Your task to perform on an android device: turn off wifi Image 0: 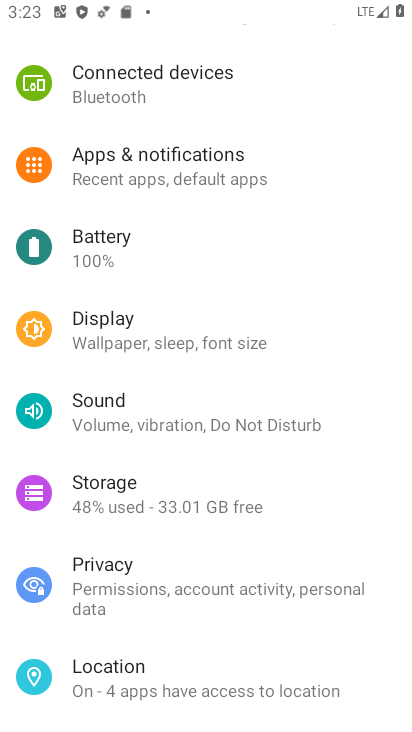
Step 0: drag from (198, 114) to (249, 489)
Your task to perform on an android device: turn off wifi Image 1: 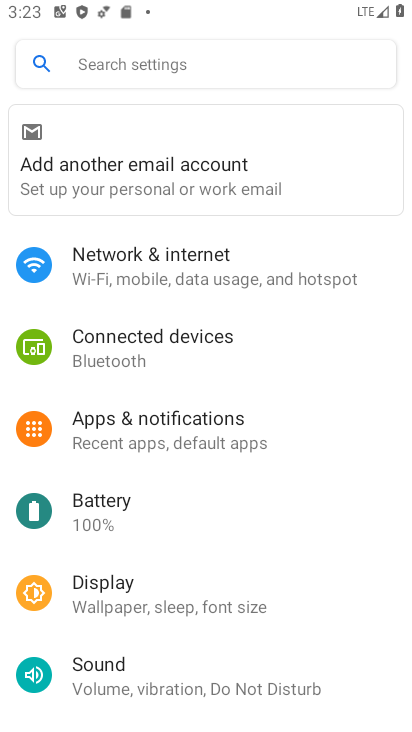
Step 1: click (273, 264)
Your task to perform on an android device: turn off wifi Image 2: 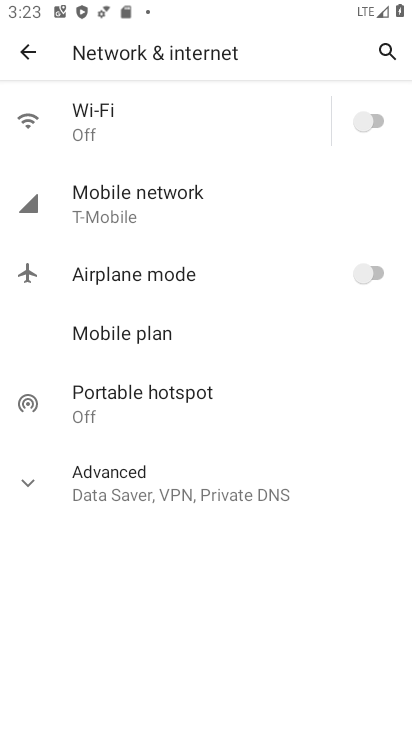
Step 2: task complete